Your task to perform on an android device: refresh tabs in the chrome app Image 0: 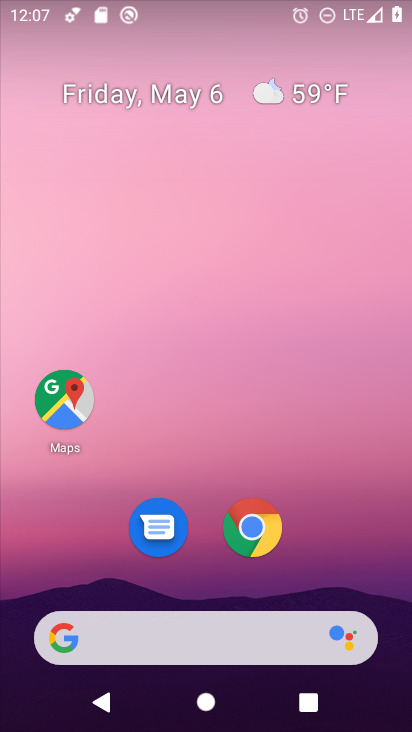
Step 0: click (239, 532)
Your task to perform on an android device: refresh tabs in the chrome app Image 1: 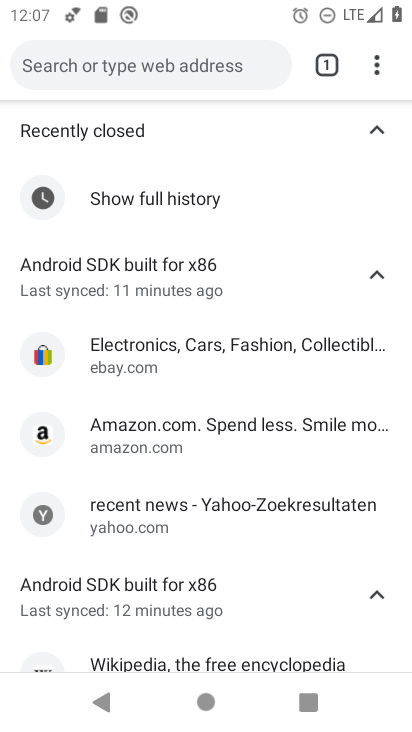
Step 1: click (379, 63)
Your task to perform on an android device: refresh tabs in the chrome app Image 2: 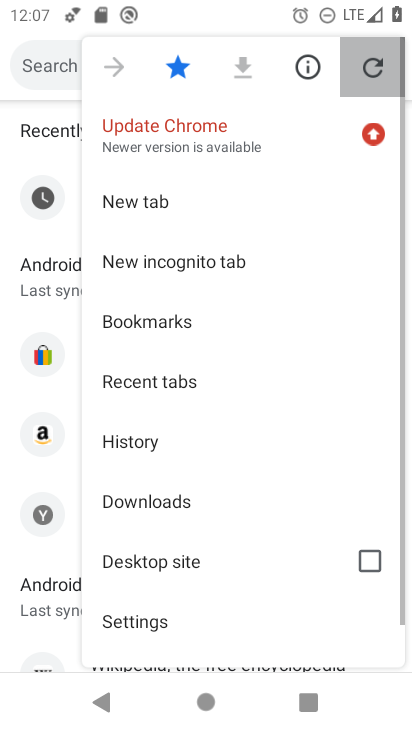
Step 2: click (379, 63)
Your task to perform on an android device: refresh tabs in the chrome app Image 3: 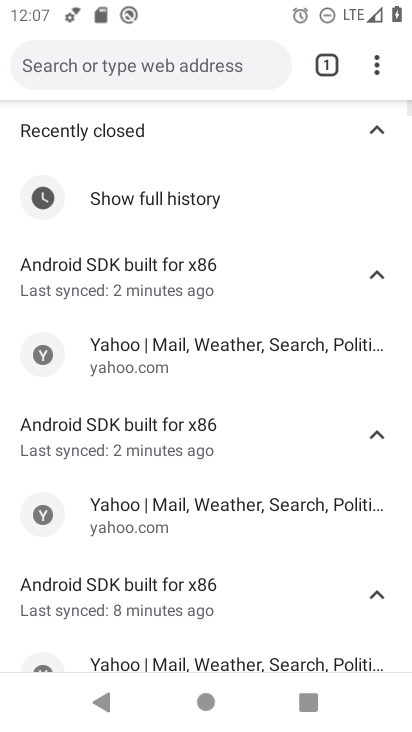
Step 3: task complete